Your task to perform on an android device: visit the assistant section in the google photos Image 0: 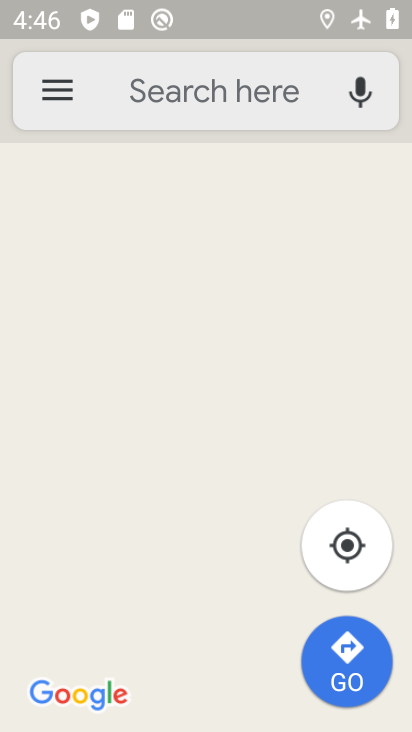
Step 0: press home button
Your task to perform on an android device: visit the assistant section in the google photos Image 1: 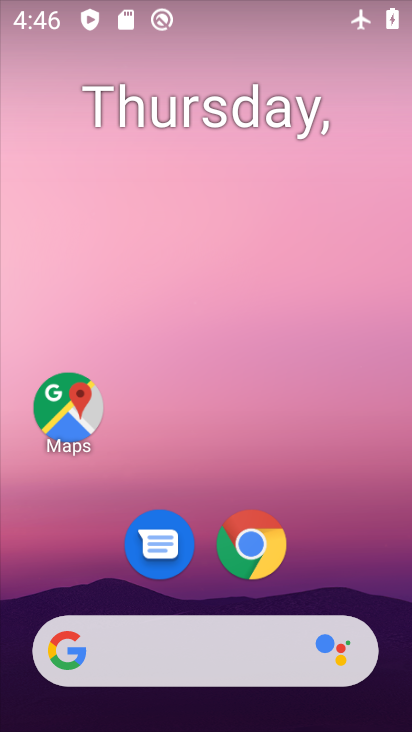
Step 1: drag from (293, 446) to (292, 164)
Your task to perform on an android device: visit the assistant section in the google photos Image 2: 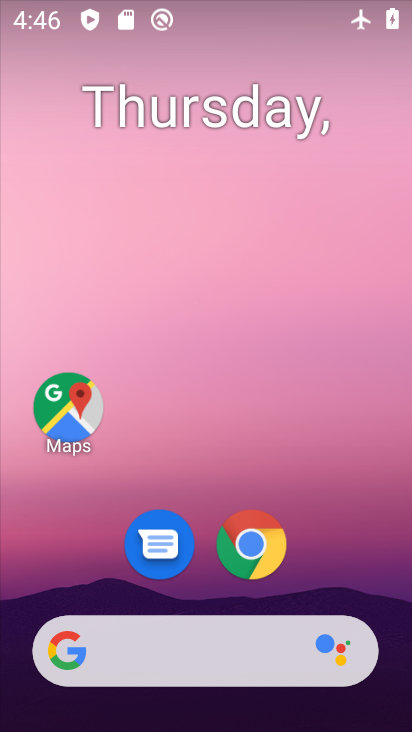
Step 2: drag from (319, 537) to (331, 191)
Your task to perform on an android device: visit the assistant section in the google photos Image 3: 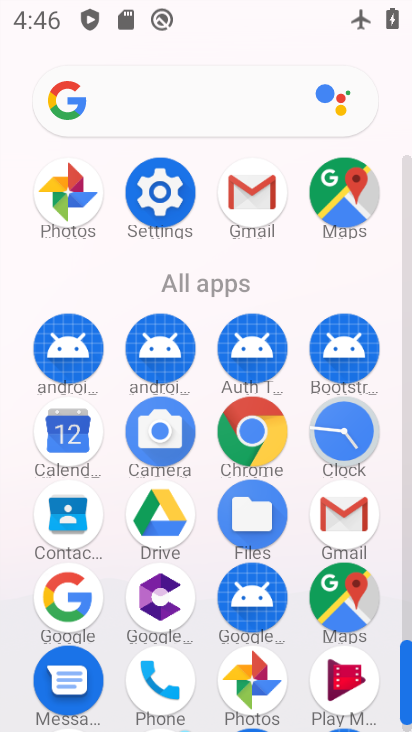
Step 3: click (249, 676)
Your task to perform on an android device: visit the assistant section in the google photos Image 4: 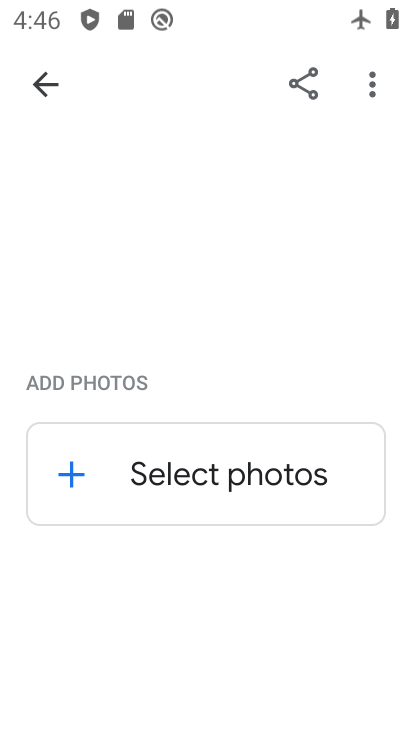
Step 4: click (43, 68)
Your task to perform on an android device: visit the assistant section in the google photos Image 5: 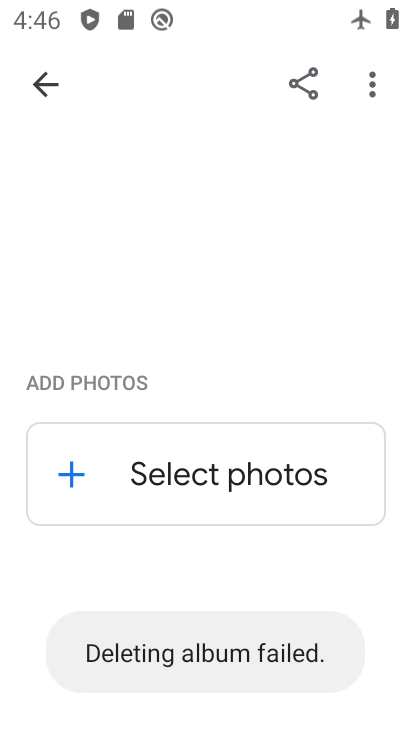
Step 5: click (43, 68)
Your task to perform on an android device: visit the assistant section in the google photos Image 6: 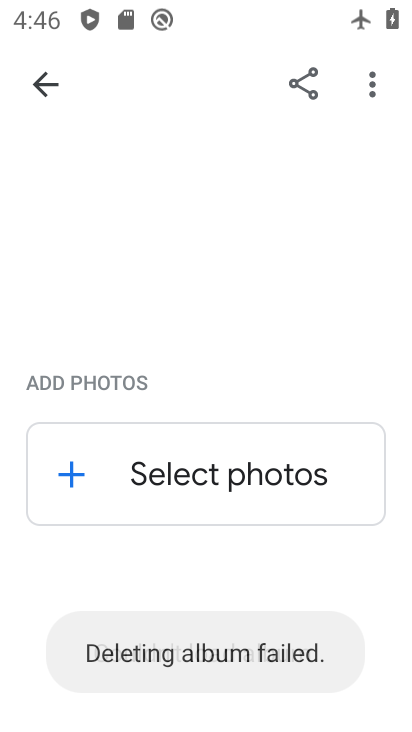
Step 6: click (43, 68)
Your task to perform on an android device: visit the assistant section in the google photos Image 7: 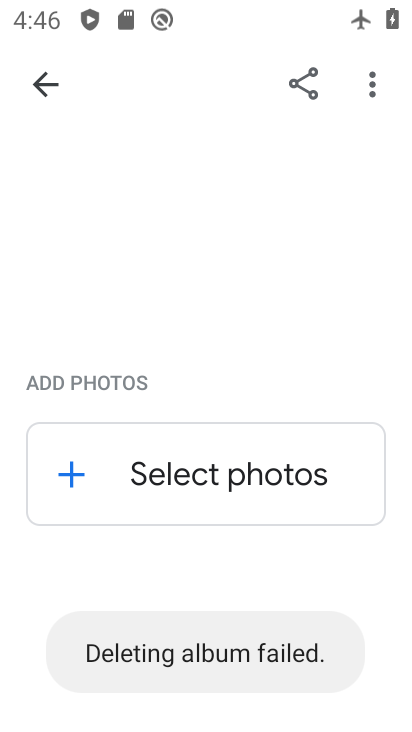
Step 7: click (49, 73)
Your task to perform on an android device: visit the assistant section in the google photos Image 8: 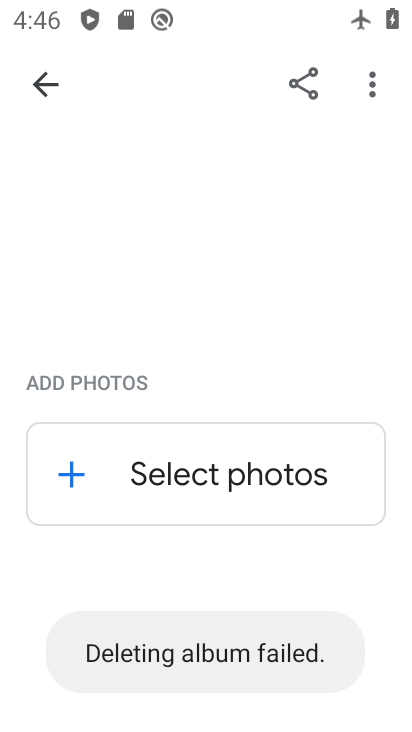
Step 8: click (45, 81)
Your task to perform on an android device: visit the assistant section in the google photos Image 9: 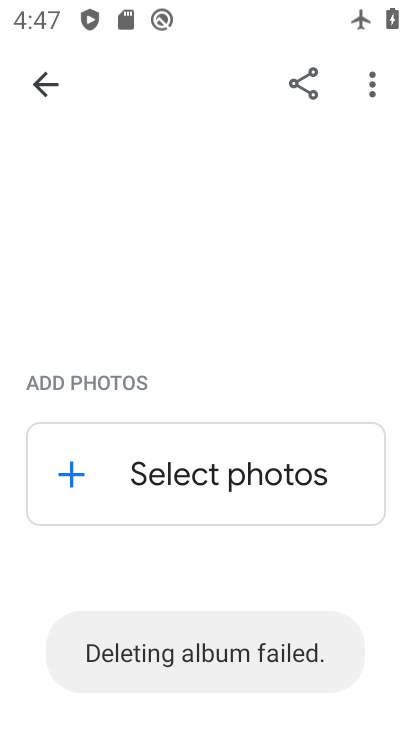
Step 9: task complete